Your task to perform on an android device: toggle airplane mode Image 0: 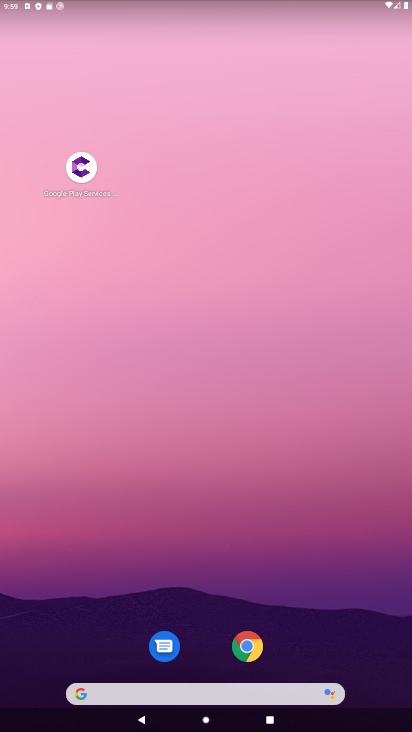
Step 0: drag from (281, 599) to (399, 15)
Your task to perform on an android device: toggle airplane mode Image 1: 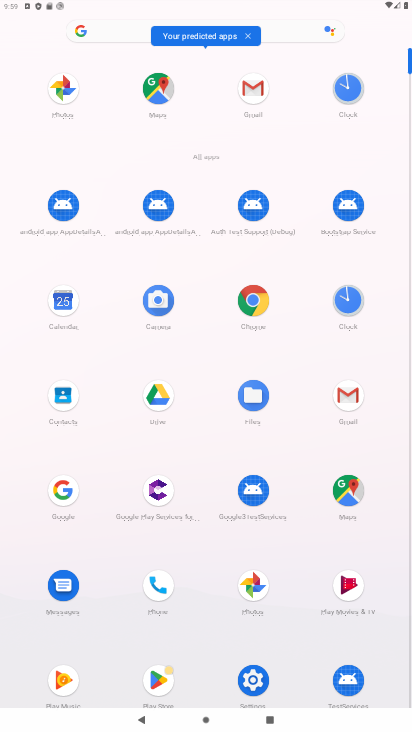
Step 1: click (263, 680)
Your task to perform on an android device: toggle airplane mode Image 2: 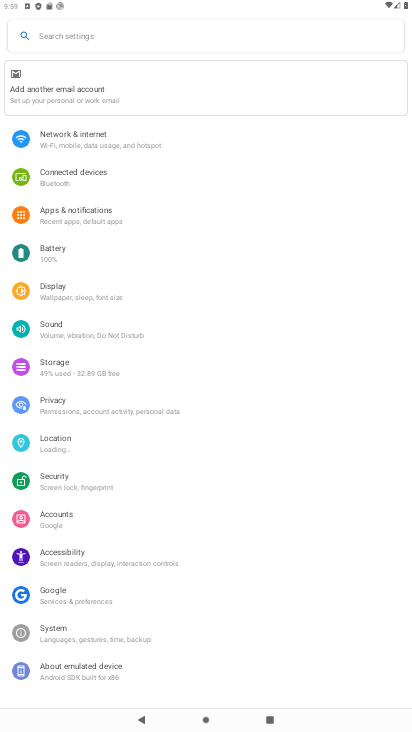
Step 2: click (111, 79)
Your task to perform on an android device: toggle airplane mode Image 3: 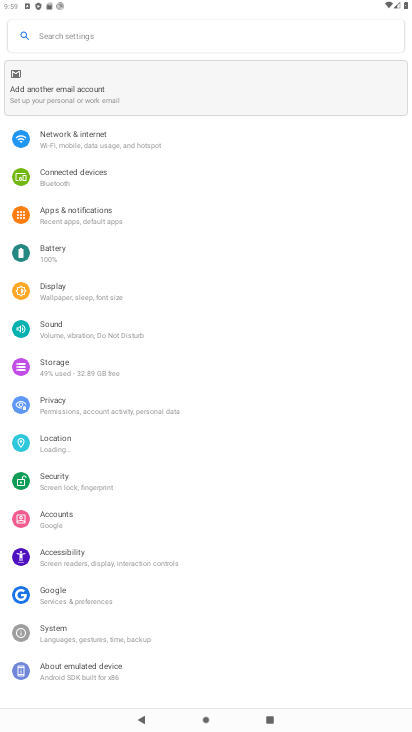
Step 3: click (72, 134)
Your task to perform on an android device: toggle airplane mode Image 4: 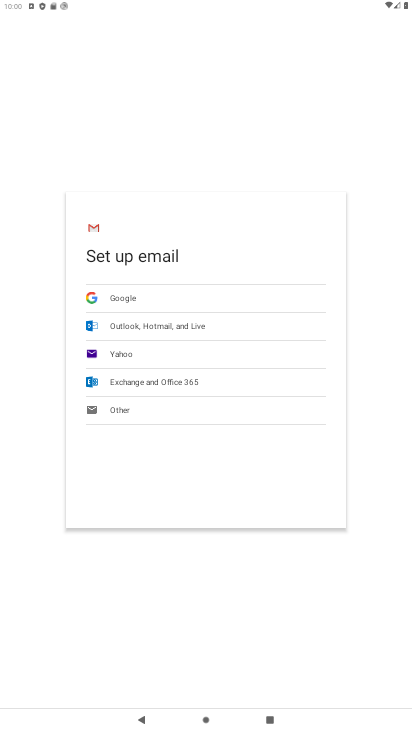
Step 4: press back button
Your task to perform on an android device: toggle airplane mode Image 5: 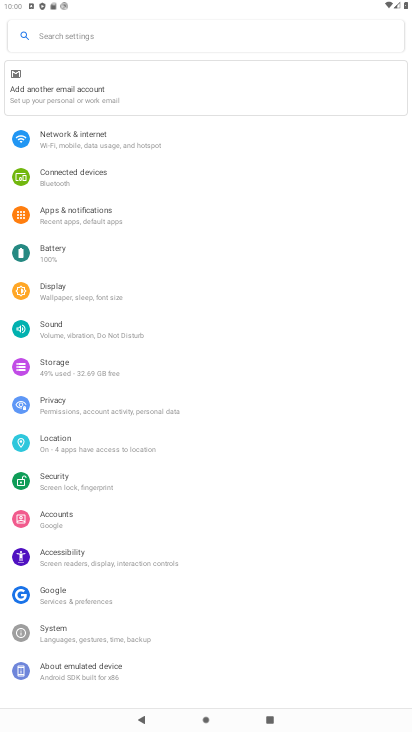
Step 5: click (117, 148)
Your task to perform on an android device: toggle airplane mode Image 6: 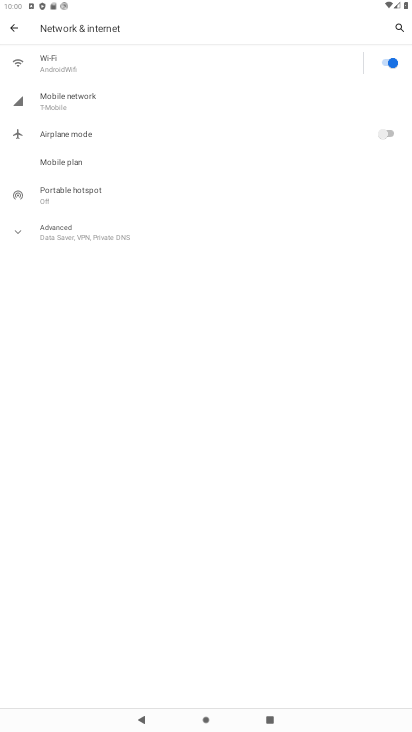
Step 6: click (377, 137)
Your task to perform on an android device: toggle airplane mode Image 7: 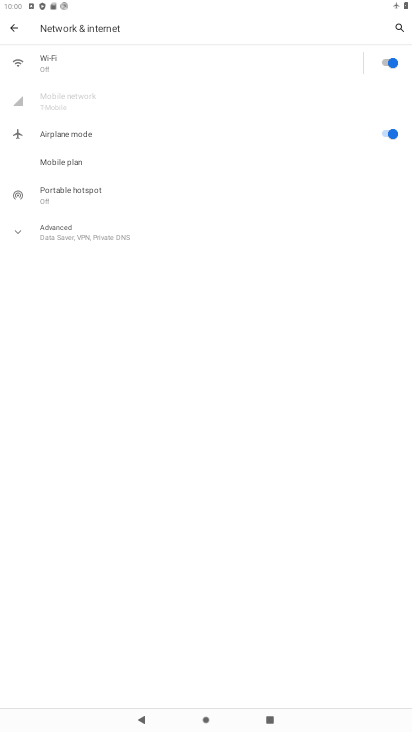
Step 7: task complete